Your task to perform on an android device: Go to privacy settings Image 0: 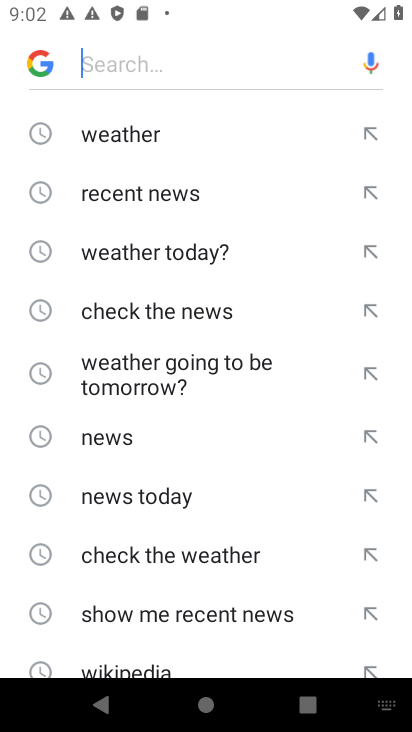
Step 0: press home button
Your task to perform on an android device: Go to privacy settings Image 1: 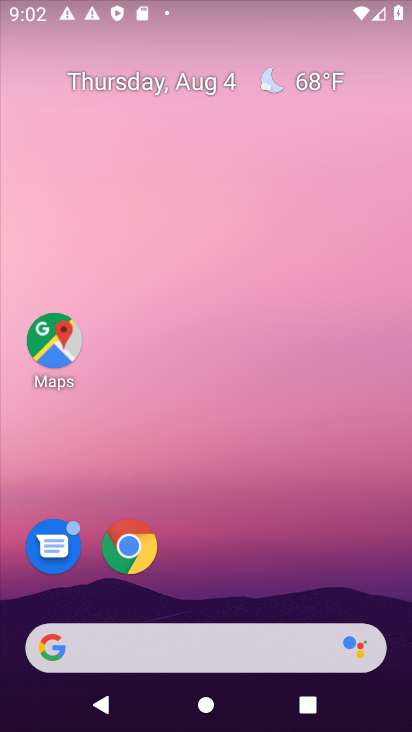
Step 1: drag from (228, 596) to (242, 147)
Your task to perform on an android device: Go to privacy settings Image 2: 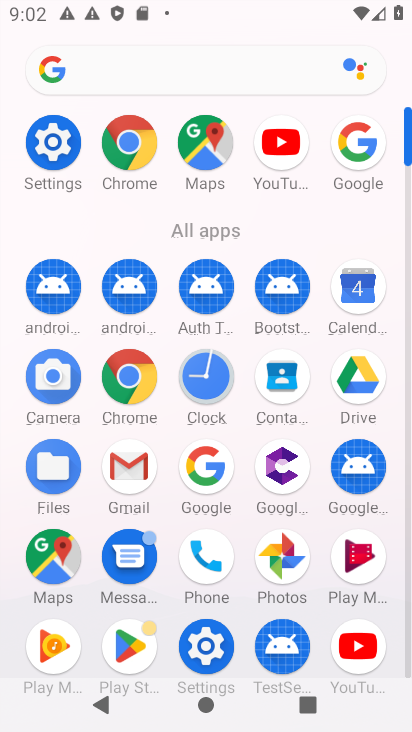
Step 2: click (57, 147)
Your task to perform on an android device: Go to privacy settings Image 3: 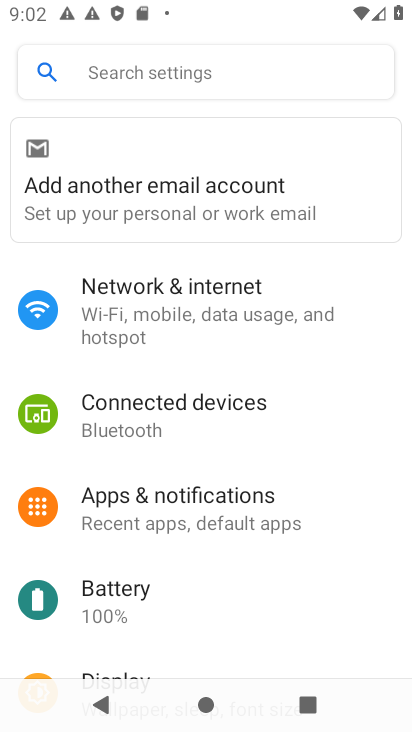
Step 3: drag from (299, 587) to (297, 270)
Your task to perform on an android device: Go to privacy settings Image 4: 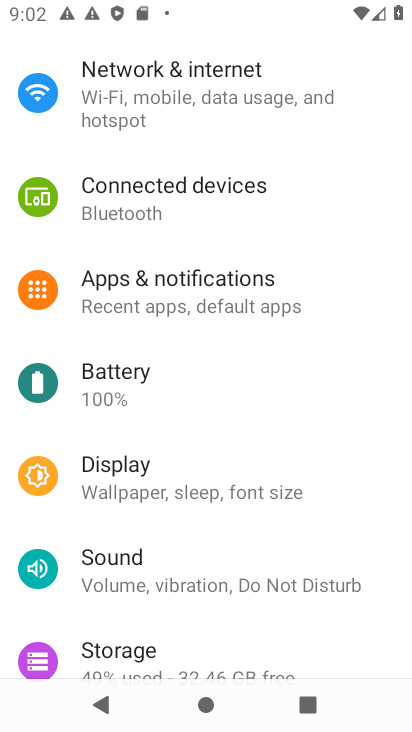
Step 4: drag from (247, 542) to (253, 226)
Your task to perform on an android device: Go to privacy settings Image 5: 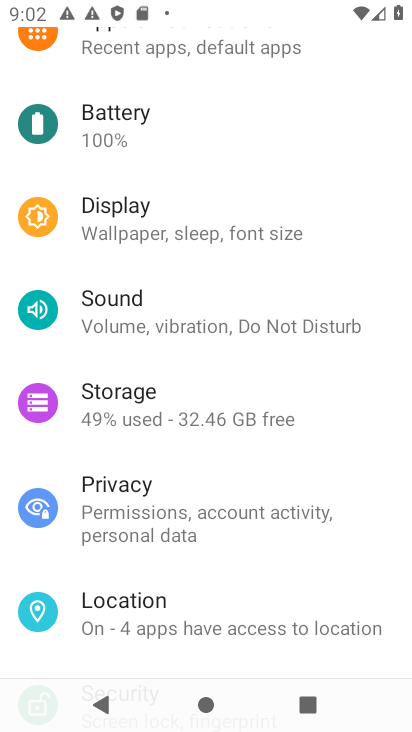
Step 5: click (116, 504)
Your task to perform on an android device: Go to privacy settings Image 6: 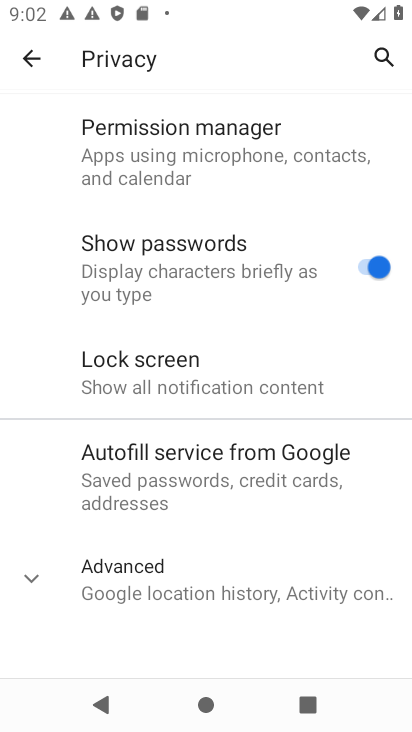
Step 6: task complete